Your task to perform on an android device: toggle wifi Image 0: 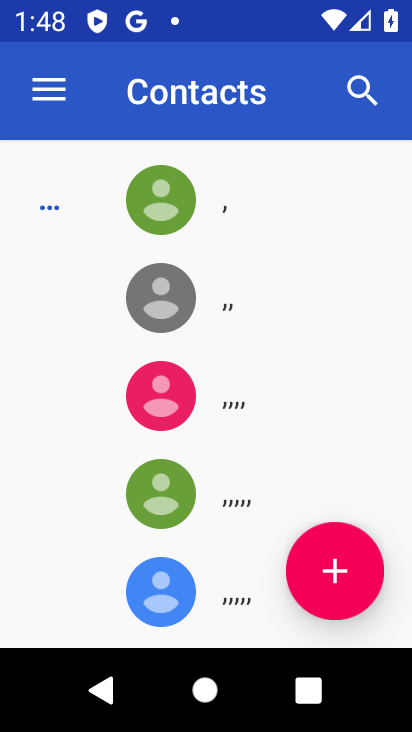
Step 0: press home button
Your task to perform on an android device: toggle wifi Image 1: 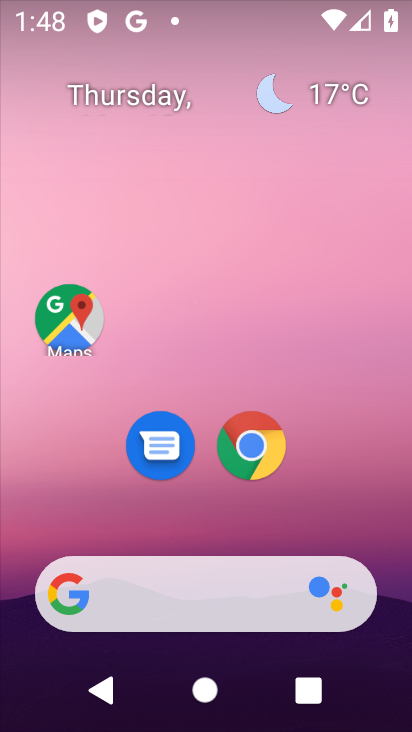
Step 1: drag from (340, 468) to (184, 16)
Your task to perform on an android device: toggle wifi Image 2: 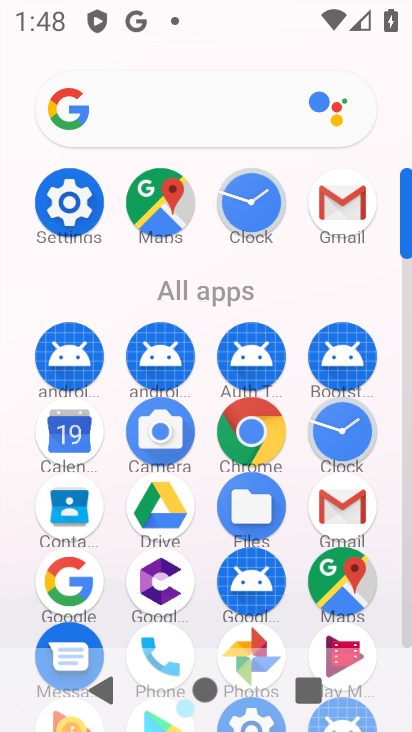
Step 2: click (67, 190)
Your task to perform on an android device: toggle wifi Image 3: 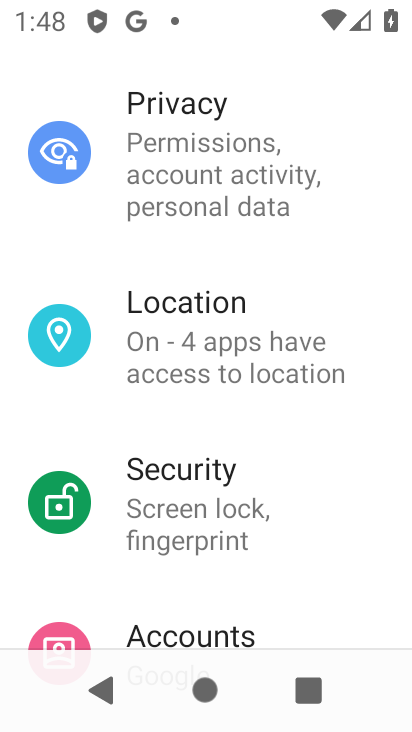
Step 3: drag from (297, 268) to (251, 592)
Your task to perform on an android device: toggle wifi Image 4: 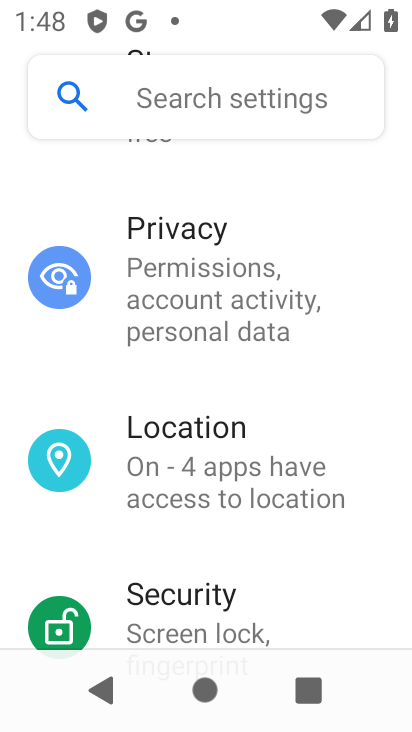
Step 4: drag from (185, 182) to (116, 555)
Your task to perform on an android device: toggle wifi Image 5: 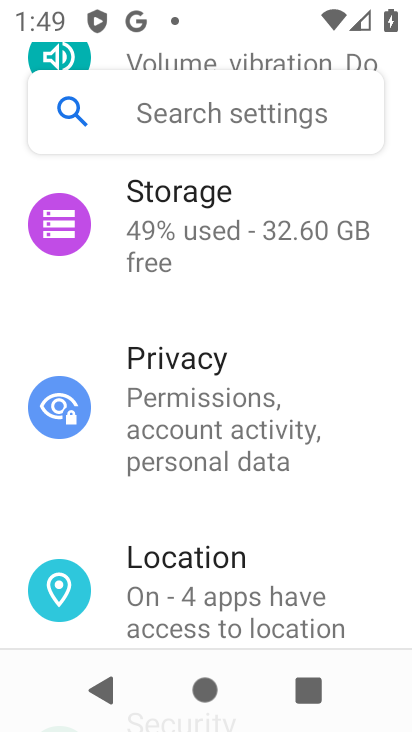
Step 5: drag from (117, 136) to (117, 533)
Your task to perform on an android device: toggle wifi Image 6: 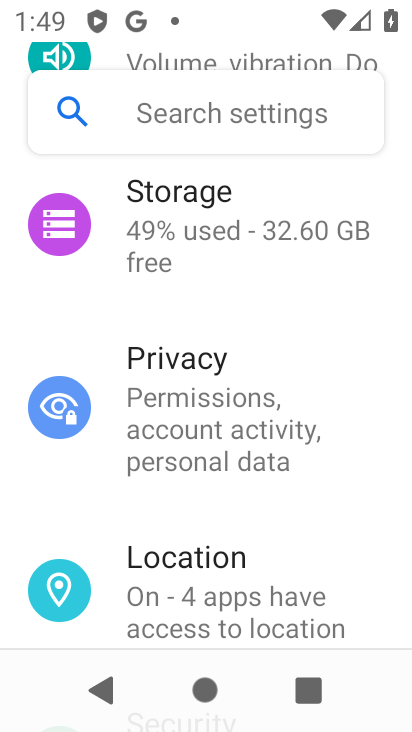
Step 6: drag from (272, 288) to (182, 622)
Your task to perform on an android device: toggle wifi Image 7: 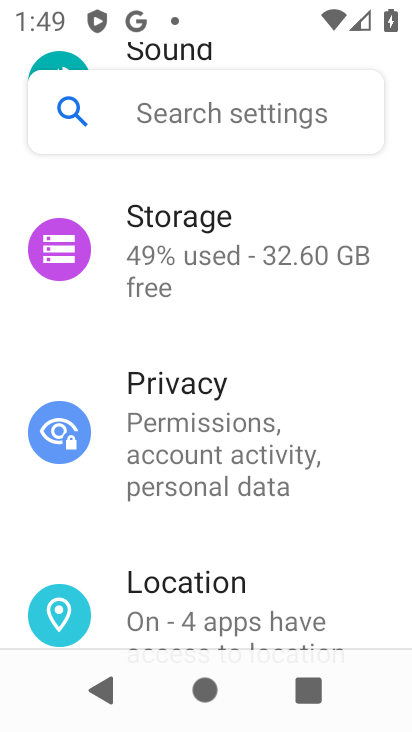
Step 7: drag from (259, 355) to (219, 728)
Your task to perform on an android device: toggle wifi Image 8: 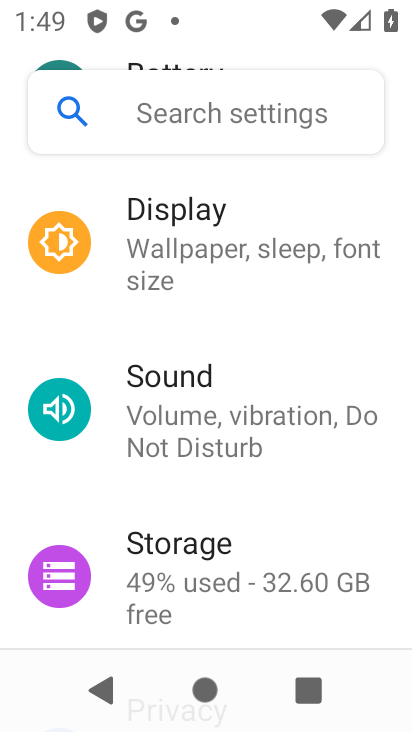
Step 8: drag from (226, 318) to (144, 676)
Your task to perform on an android device: toggle wifi Image 9: 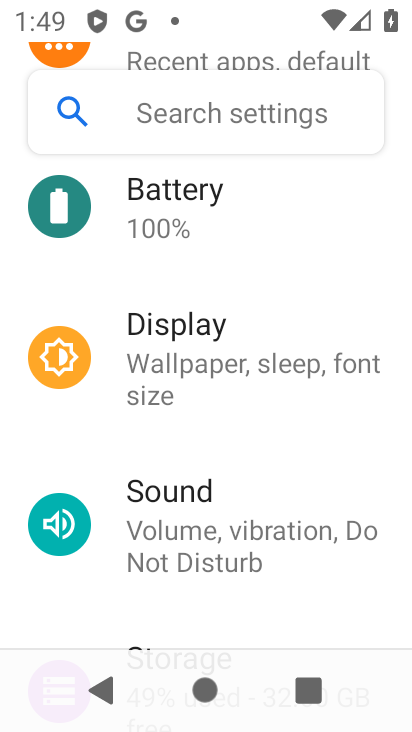
Step 9: drag from (226, 259) to (134, 722)
Your task to perform on an android device: toggle wifi Image 10: 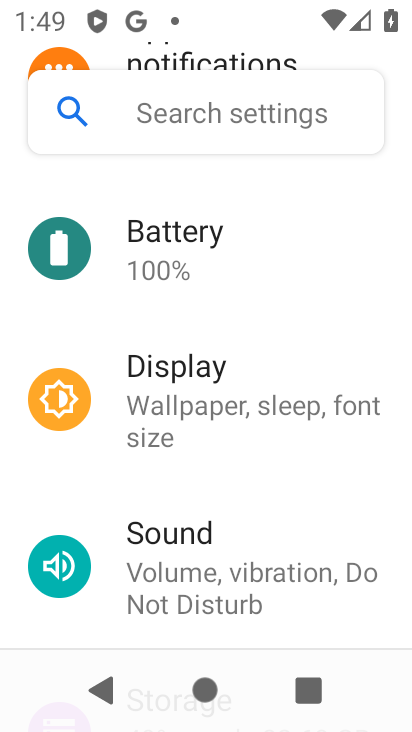
Step 10: drag from (212, 183) to (212, 497)
Your task to perform on an android device: toggle wifi Image 11: 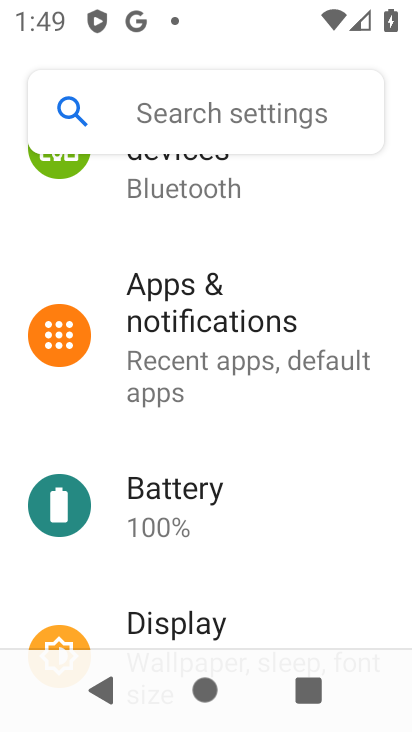
Step 11: drag from (182, 213) to (151, 667)
Your task to perform on an android device: toggle wifi Image 12: 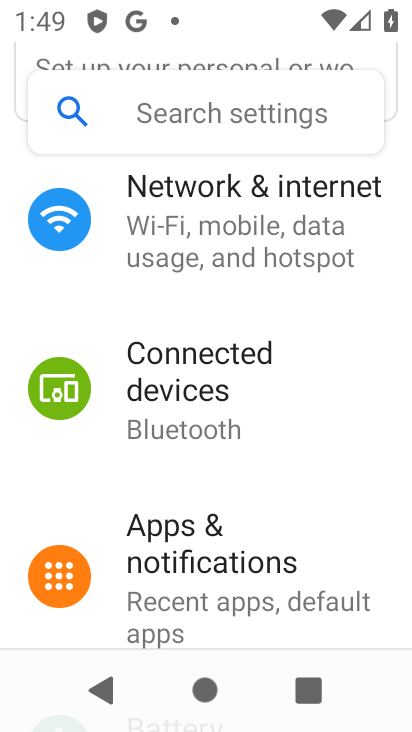
Step 12: click (155, 655)
Your task to perform on an android device: toggle wifi Image 13: 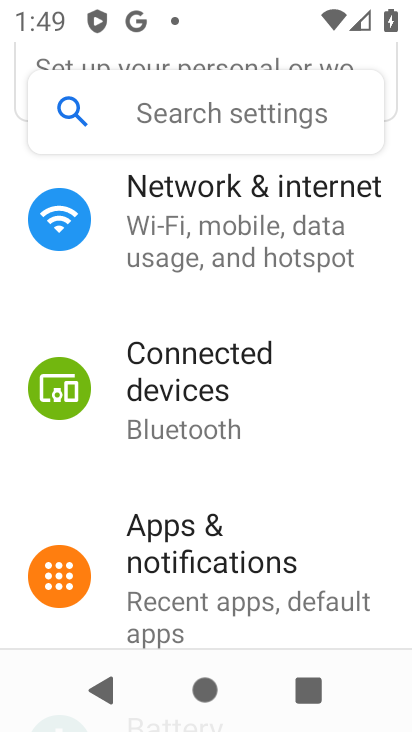
Step 13: click (202, 198)
Your task to perform on an android device: toggle wifi Image 14: 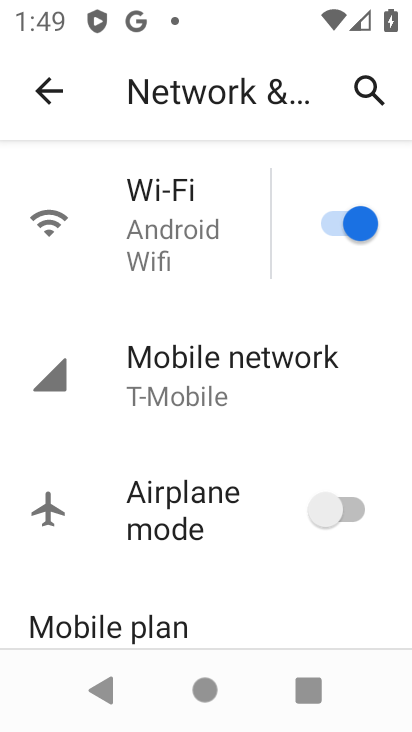
Step 14: click (342, 221)
Your task to perform on an android device: toggle wifi Image 15: 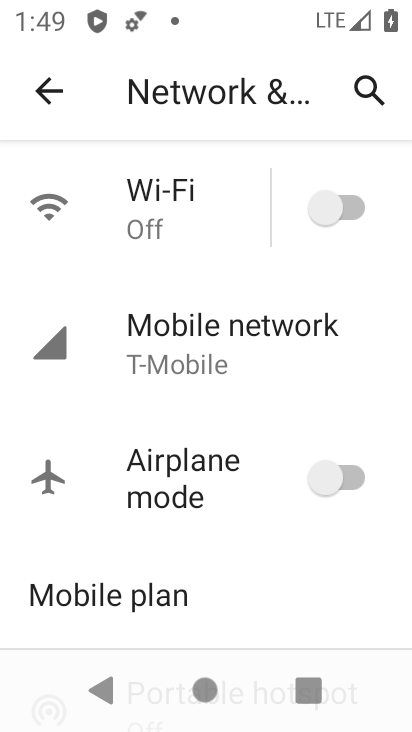
Step 15: task complete